Your task to perform on an android device: turn on showing notifications on the lock screen Image 0: 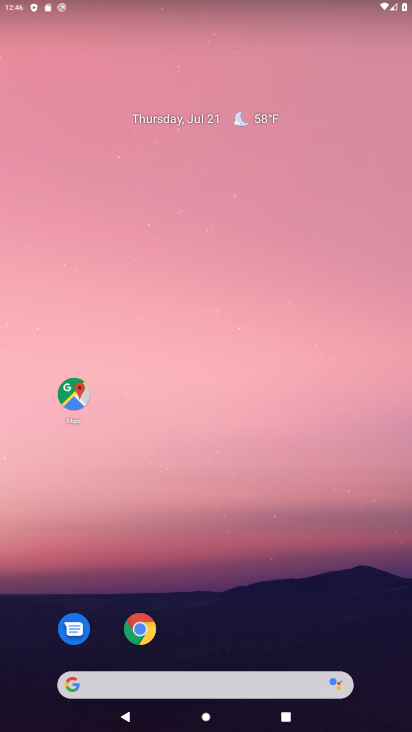
Step 0: drag from (208, 684) to (213, 108)
Your task to perform on an android device: turn on showing notifications on the lock screen Image 1: 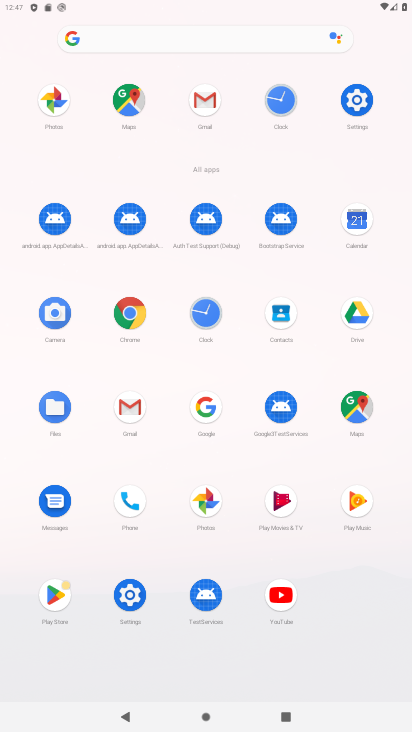
Step 1: click (358, 99)
Your task to perform on an android device: turn on showing notifications on the lock screen Image 2: 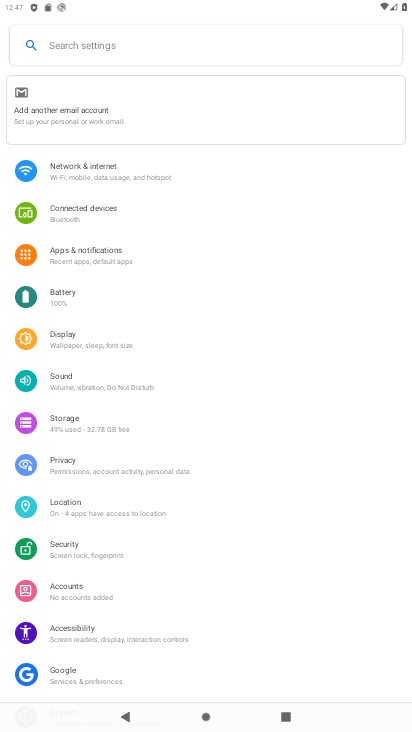
Step 2: click (113, 253)
Your task to perform on an android device: turn on showing notifications on the lock screen Image 3: 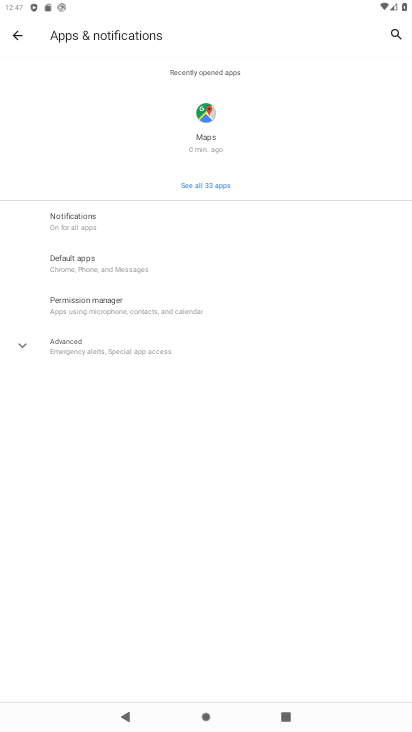
Step 3: click (77, 220)
Your task to perform on an android device: turn on showing notifications on the lock screen Image 4: 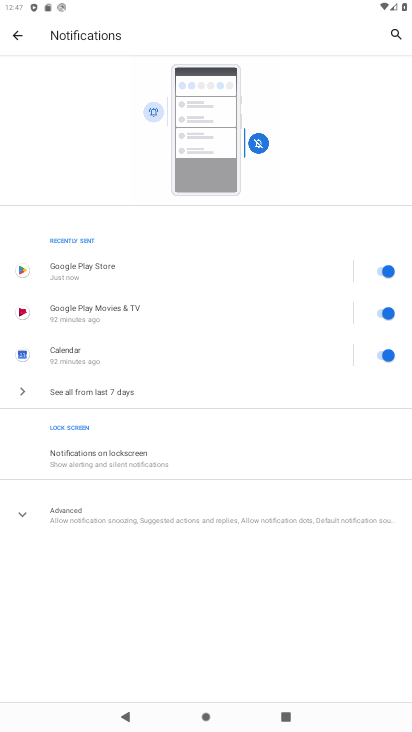
Step 4: click (87, 454)
Your task to perform on an android device: turn on showing notifications on the lock screen Image 5: 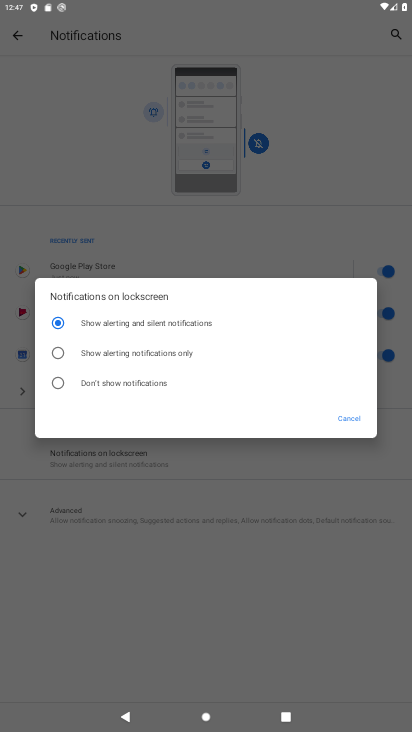
Step 5: click (58, 321)
Your task to perform on an android device: turn on showing notifications on the lock screen Image 6: 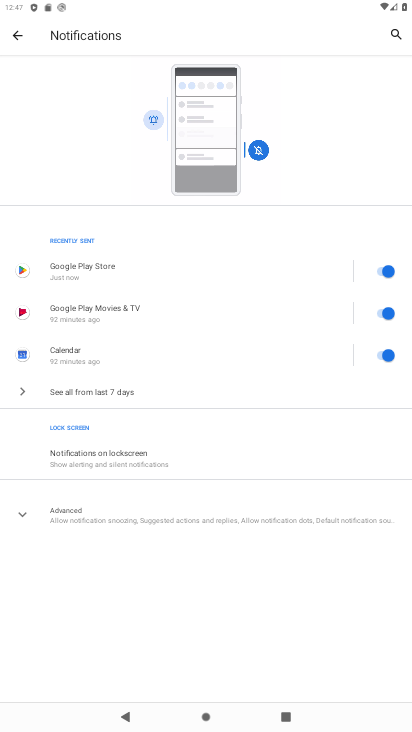
Step 6: task complete